Your task to perform on an android device: Open location settings Image 0: 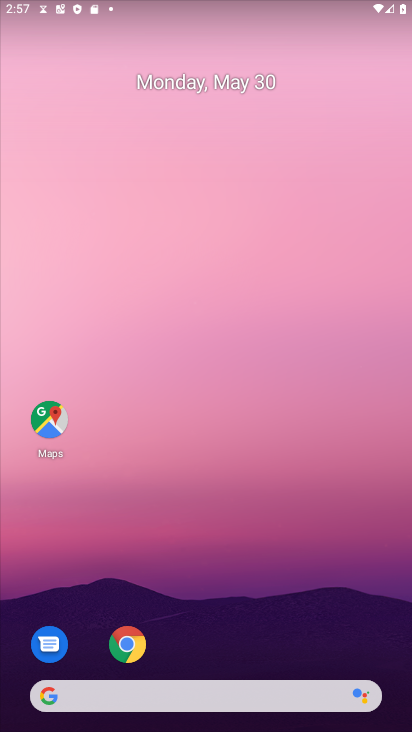
Step 0: press home button
Your task to perform on an android device: Open location settings Image 1: 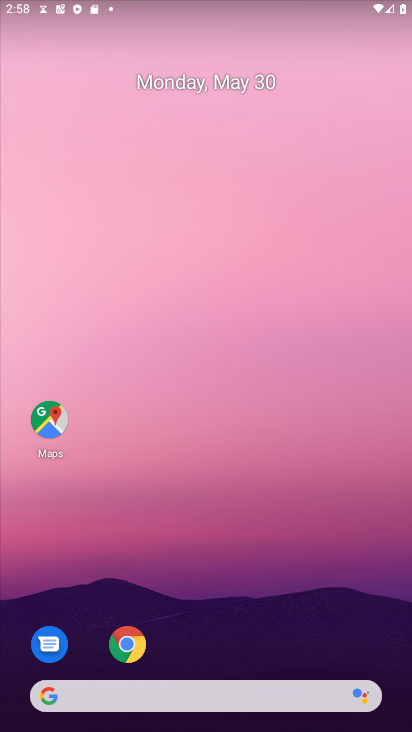
Step 1: drag from (253, 651) to (262, 481)
Your task to perform on an android device: Open location settings Image 2: 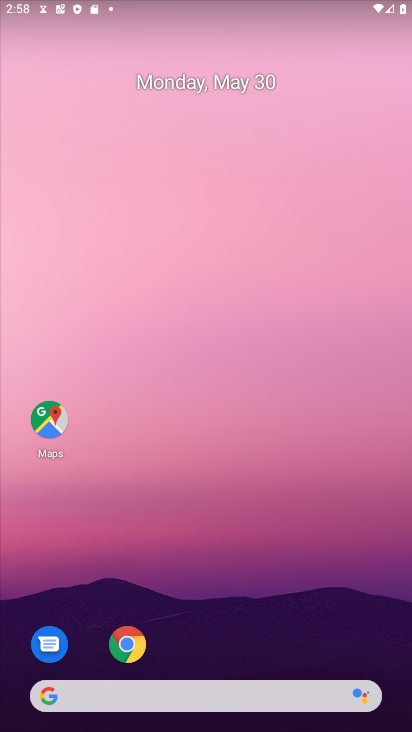
Step 2: drag from (248, 647) to (256, 173)
Your task to perform on an android device: Open location settings Image 3: 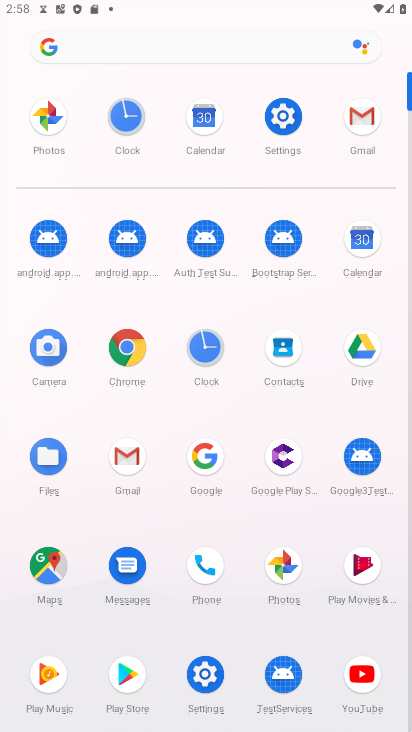
Step 3: click (205, 679)
Your task to perform on an android device: Open location settings Image 4: 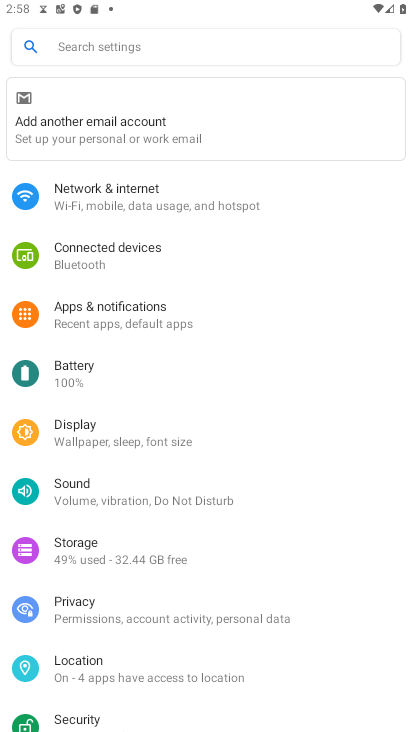
Step 4: click (85, 676)
Your task to perform on an android device: Open location settings Image 5: 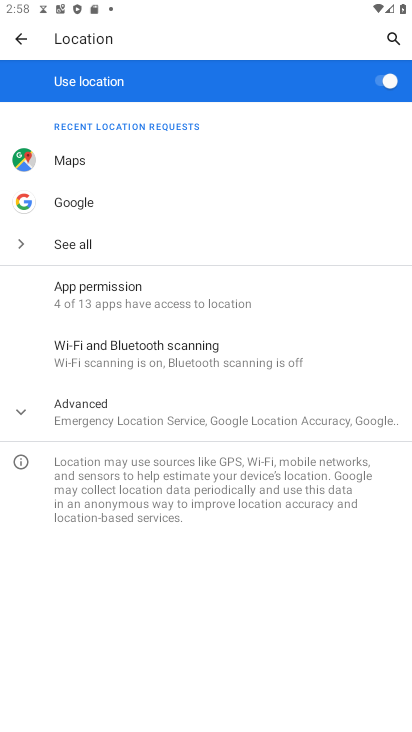
Step 5: task complete